Your task to perform on an android device: check android version Image 0: 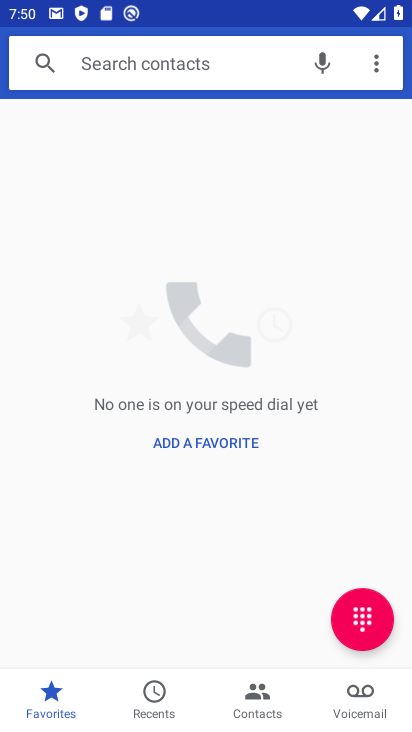
Step 0: press home button
Your task to perform on an android device: check android version Image 1: 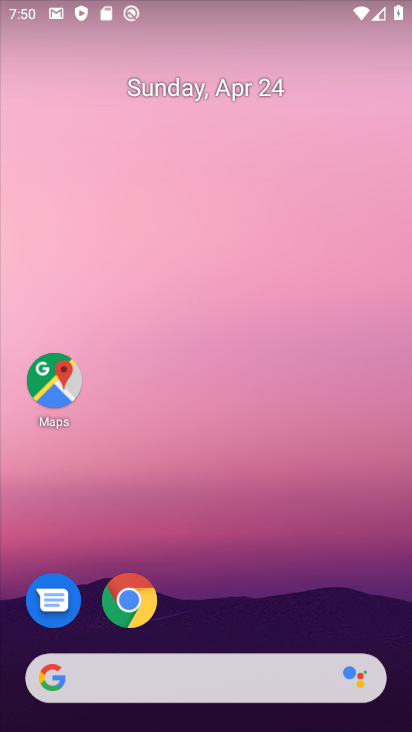
Step 1: drag from (301, 553) to (255, 55)
Your task to perform on an android device: check android version Image 2: 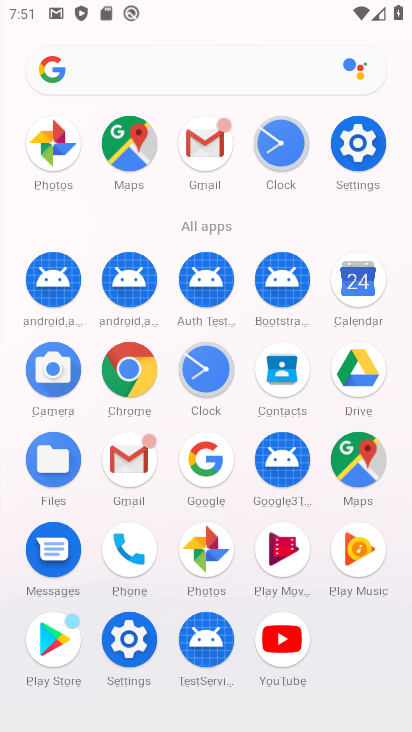
Step 2: click (126, 636)
Your task to perform on an android device: check android version Image 3: 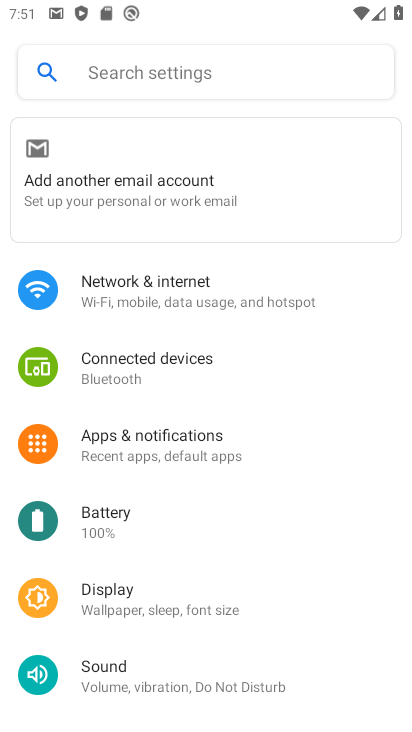
Step 3: drag from (351, 703) to (324, 130)
Your task to perform on an android device: check android version Image 4: 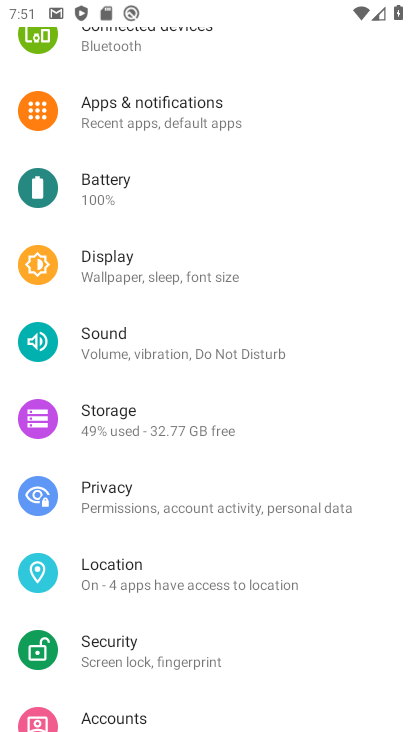
Step 4: drag from (326, 468) to (318, 166)
Your task to perform on an android device: check android version Image 5: 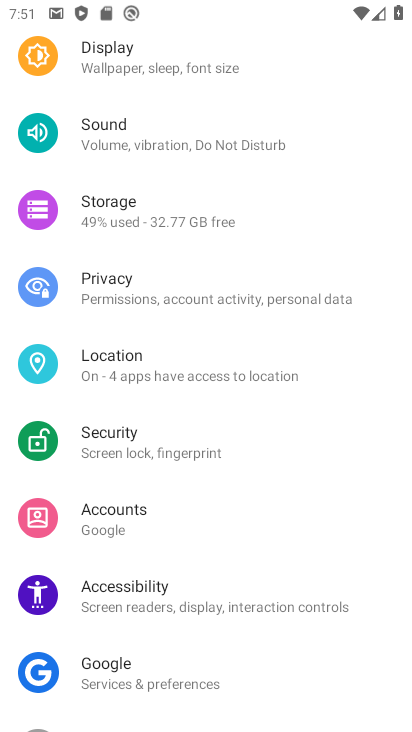
Step 5: drag from (194, 571) to (262, 237)
Your task to perform on an android device: check android version Image 6: 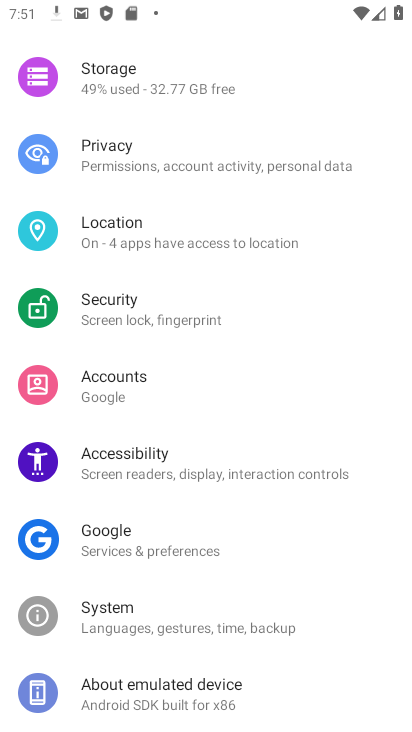
Step 6: click (192, 676)
Your task to perform on an android device: check android version Image 7: 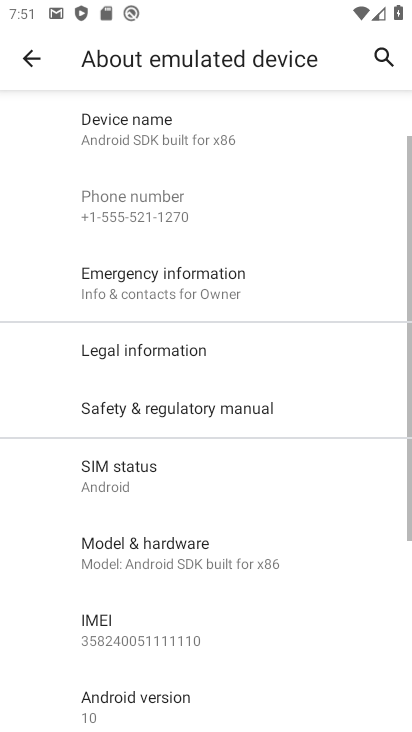
Step 7: drag from (243, 634) to (233, 471)
Your task to perform on an android device: check android version Image 8: 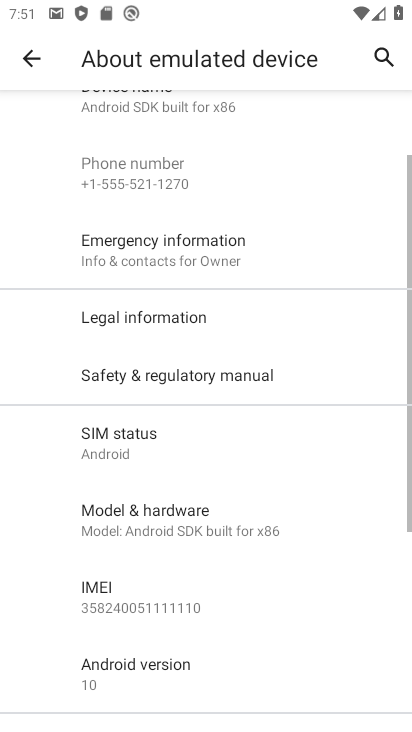
Step 8: click (115, 678)
Your task to perform on an android device: check android version Image 9: 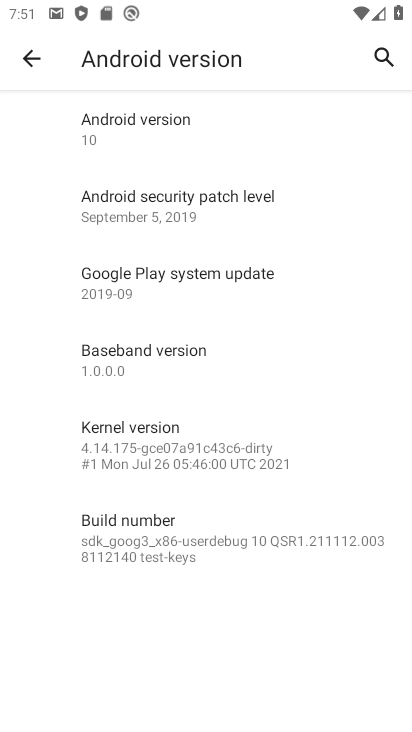
Step 9: task complete